Your task to perform on an android device: Open the calendar and show me this week's events? Image 0: 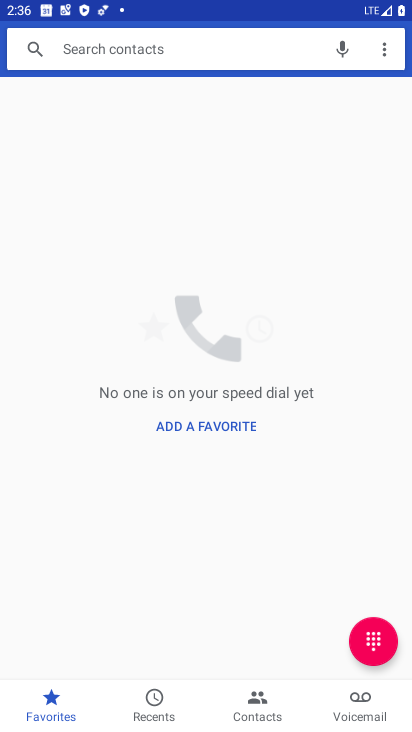
Step 0: press home button
Your task to perform on an android device: Open the calendar and show me this week's events? Image 1: 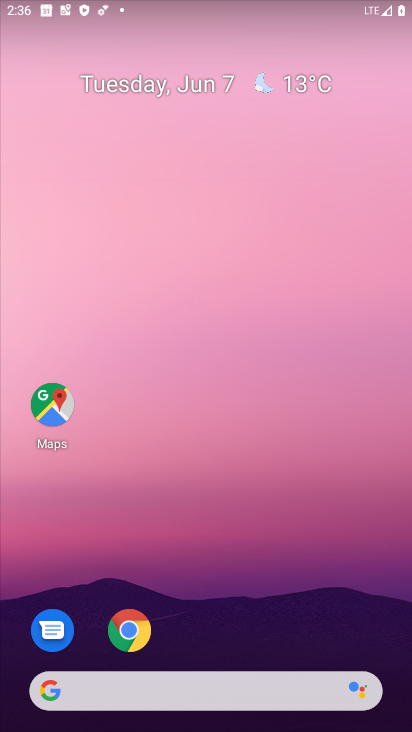
Step 1: drag from (297, 583) to (338, 95)
Your task to perform on an android device: Open the calendar and show me this week's events? Image 2: 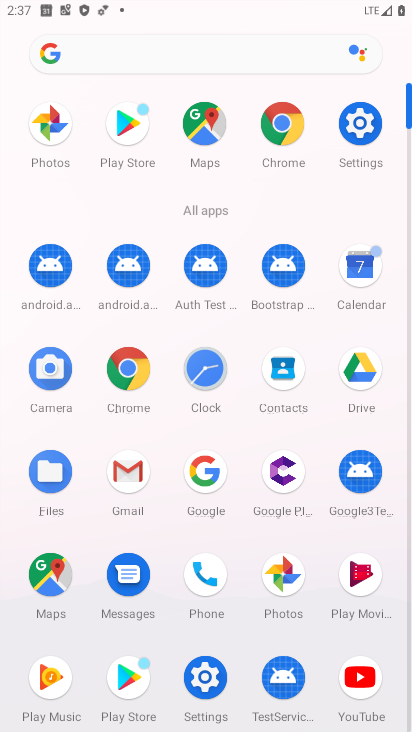
Step 2: click (362, 270)
Your task to perform on an android device: Open the calendar and show me this week's events? Image 3: 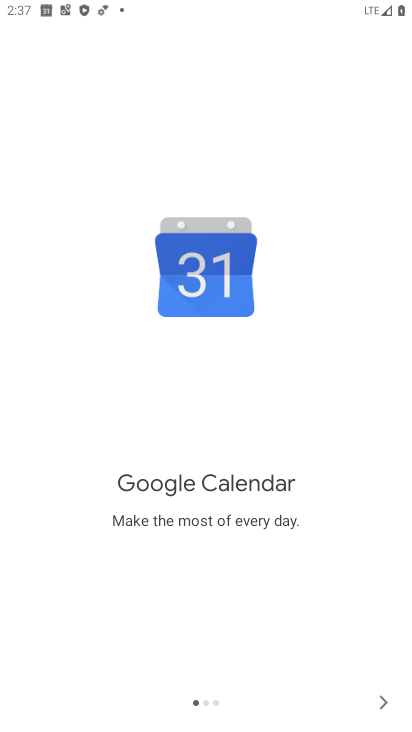
Step 3: click (380, 690)
Your task to perform on an android device: Open the calendar and show me this week's events? Image 4: 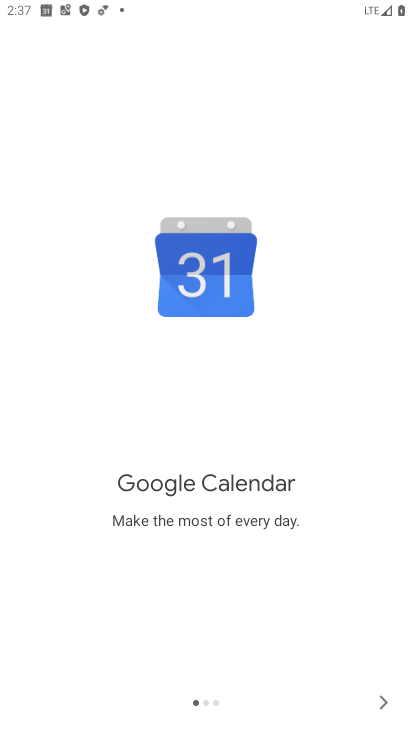
Step 4: click (380, 690)
Your task to perform on an android device: Open the calendar and show me this week's events? Image 5: 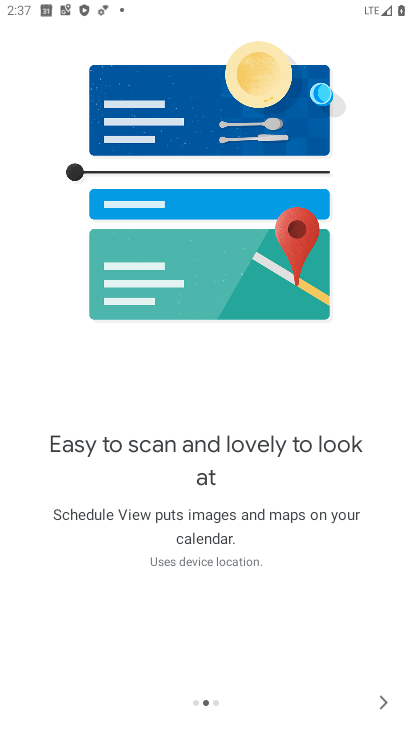
Step 5: click (380, 690)
Your task to perform on an android device: Open the calendar and show me this week's events? Image 6: 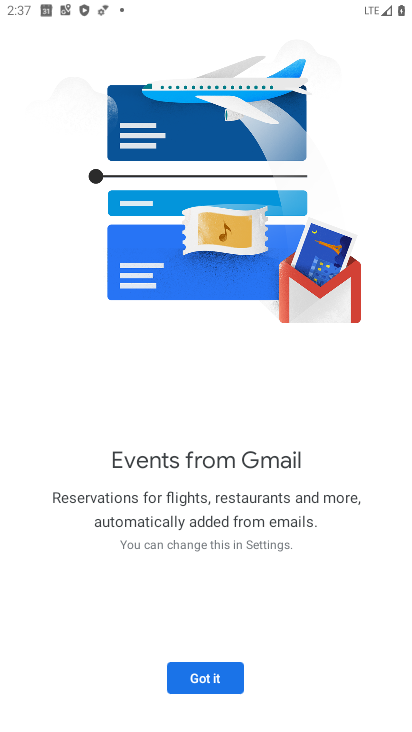
Step 6: click (379, 698)
Your task to perform on an android device: Open the calendar and show me this week's events? Image 7: 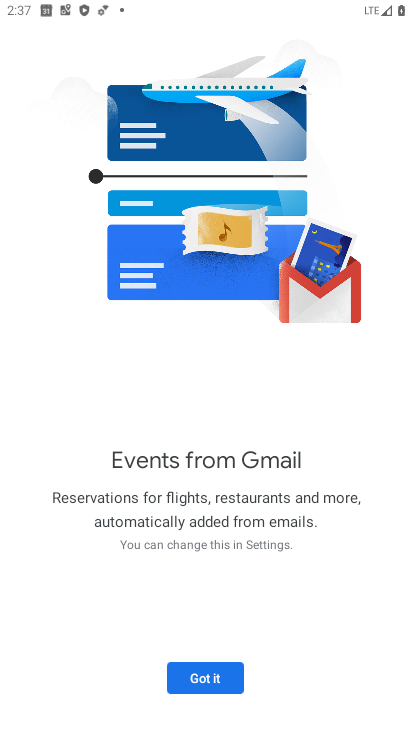
Step 7: click (203, 678)
Your task to perform on an android device: Open the calendar and show me this week's events? Image 8: 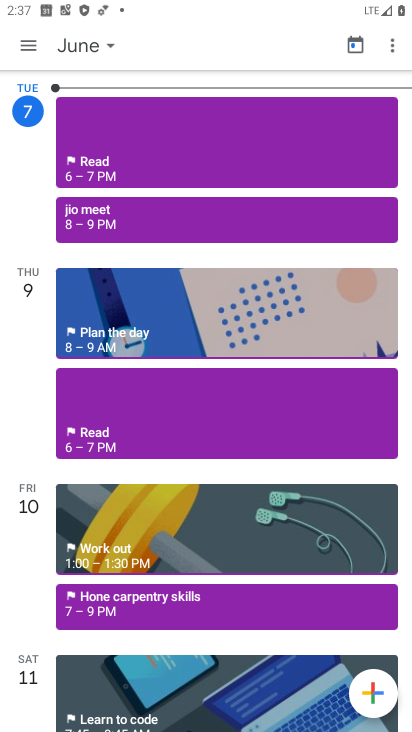
Step 8: click (32, 42)
Your task to perform on an android device: Open the calendar and show me this week's events? Image 9: 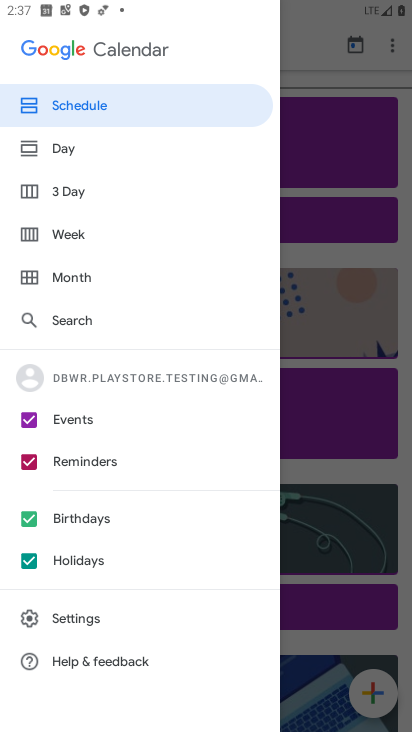
Step 9: click (97, 235)
Your task to perform on an android device: Open the calendar and show me this week's events? Image 10: 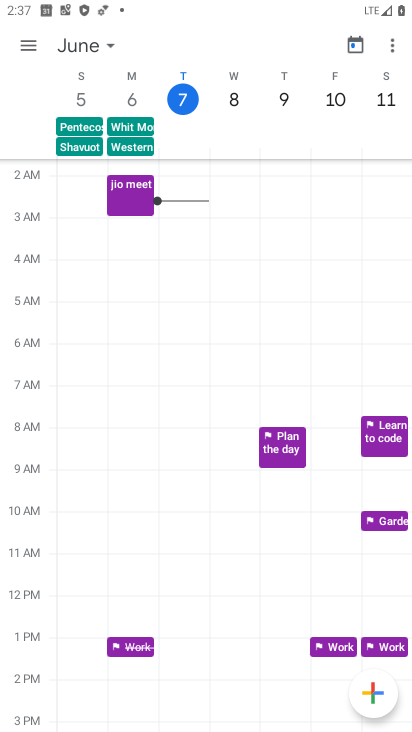
Step 10: task complete